Your task to perform on an android device: add a label to a message in the gmail app Image 0: 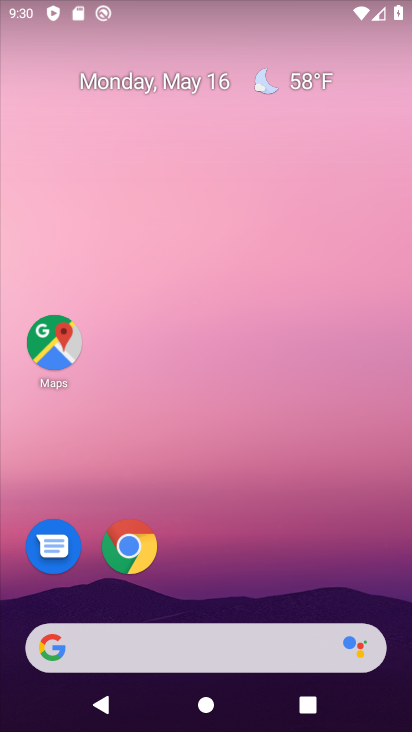
Step 0: drag from (251, 568) to (254, 135)
Your task to perform on an android device: add a label to a message in the gmail app Image 1: 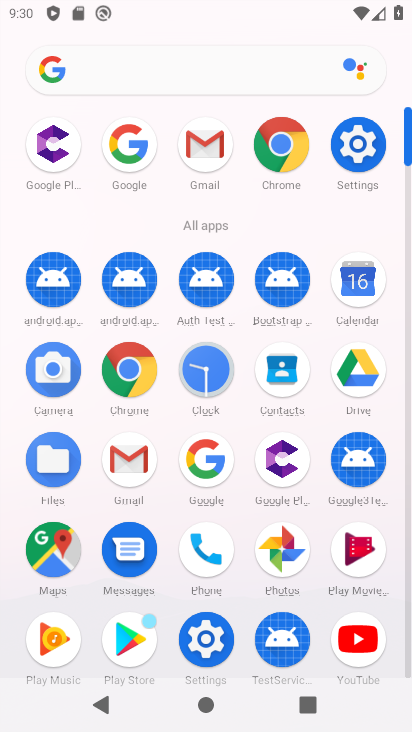
Step 1: click (203, 148)
Your task to perform on an android device: add a label to a message in the gmail app Image 2: 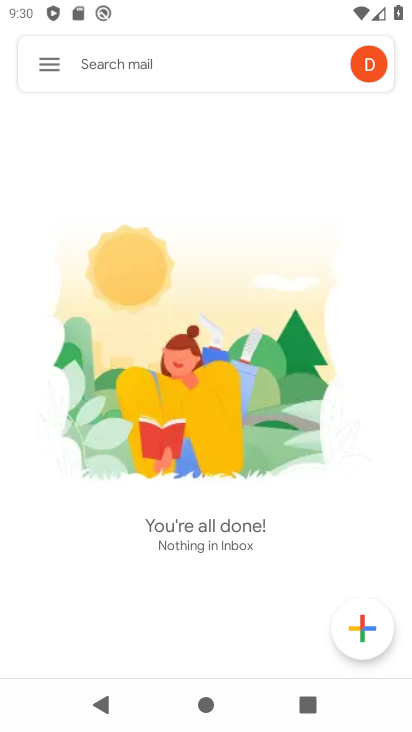
Step 2: click (51, 65)
Your task to perform on an android device: add a label to a message in the gmail app Image 3: 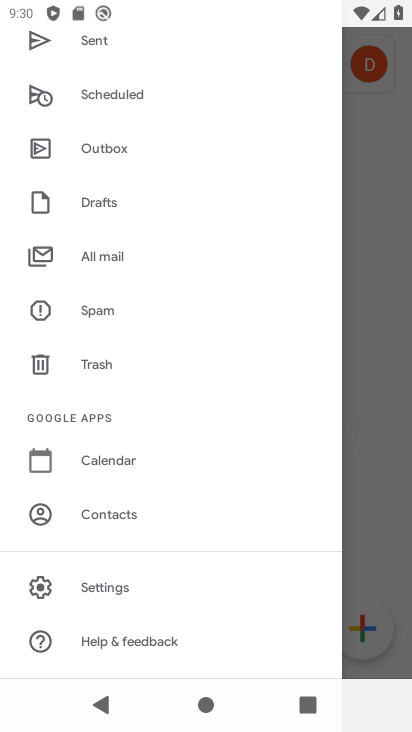
Step 3: click (112, 260)
Your task to perform on an android device: add a label to a message in the gmail app Image 4: 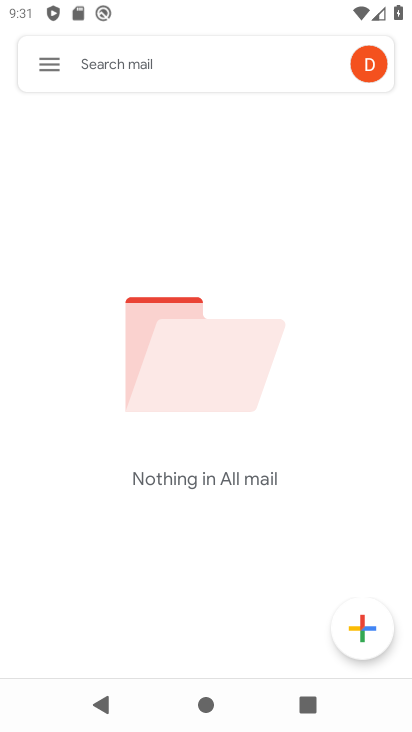
Step 4: task complete